Your task to perform on an android device: check the backup settings in the google photos Image 0: 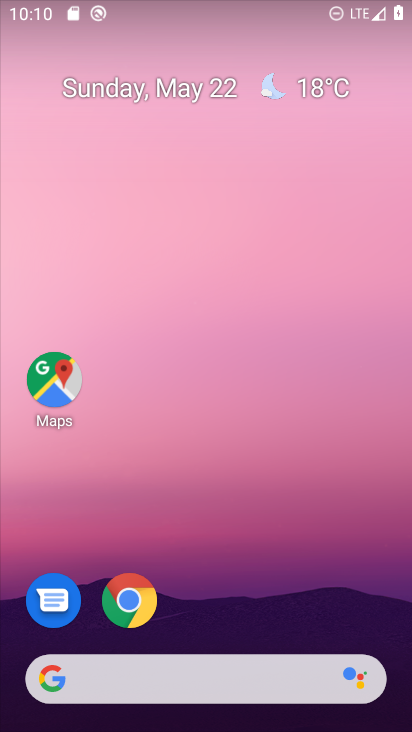
Step 0: drag from (382, 630) to (269, 43)
Your task to perform on an android device: check the backup settings in the google photos Image 1: 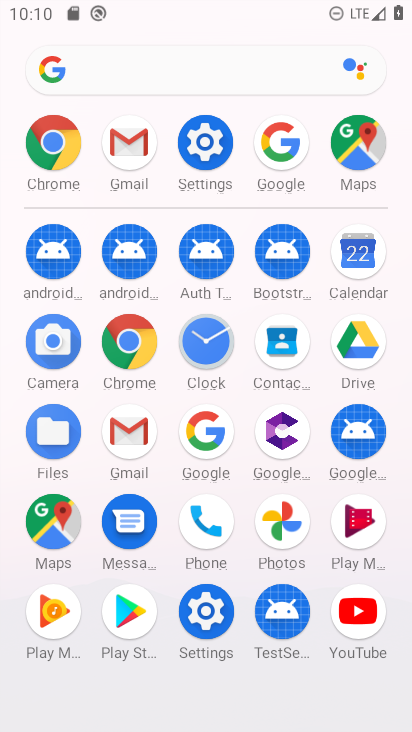
Step 1: click (284, 529)
Your task to perform on an android device: check the backup settings in the google photos Image 2: 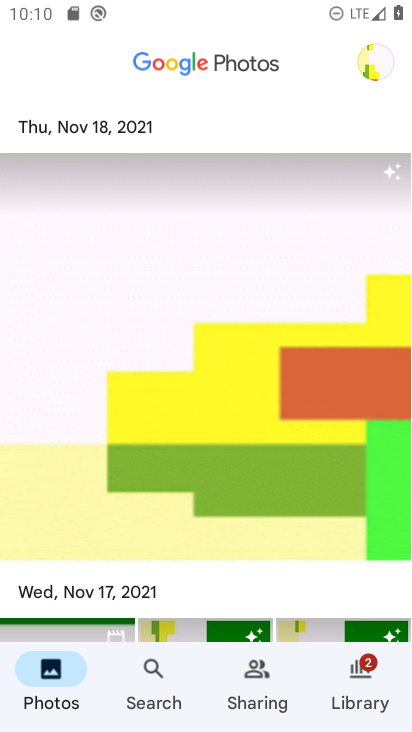
Step 2: press back button
Your task to perform on an android device: check the backup settings in the google photos Image 3: 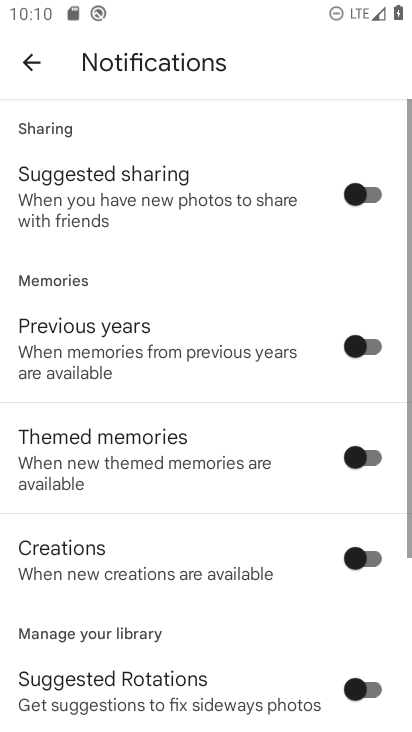
Step 3: press back button
Your task to perform on an android device: check the backup settings in the google photos Image 4: 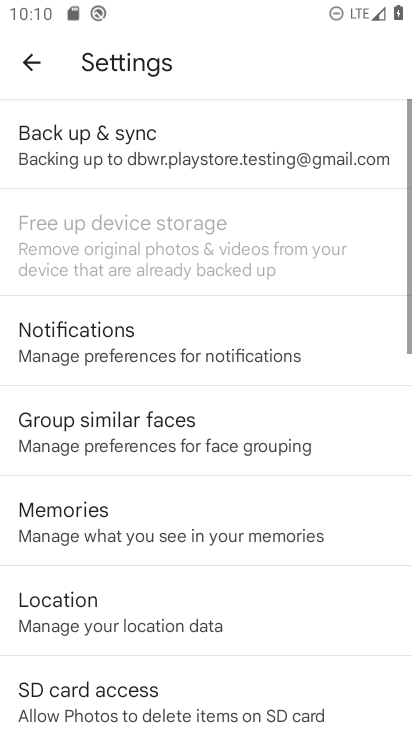
Step 4: click (199, 166)
Your task to perform on an android device: check the backup settings in the google photos Image 5: 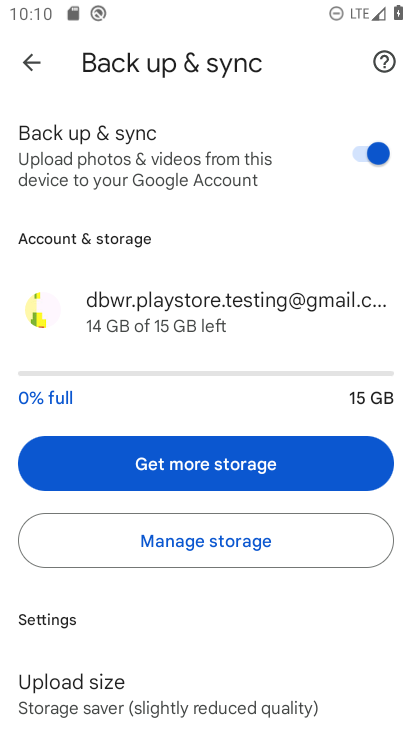
Step 5: task complete